Your task to perform on an android device: check battery use Image 0: 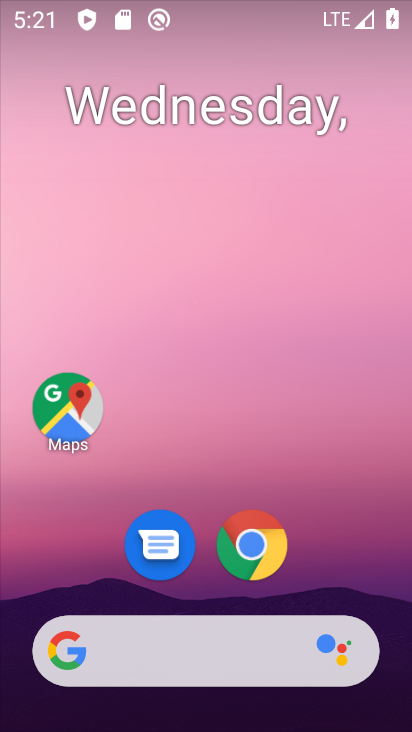
Step 0: drag from (204, 594) to (316, 26)
Your task to perform on an android device: check battery use Image 1: 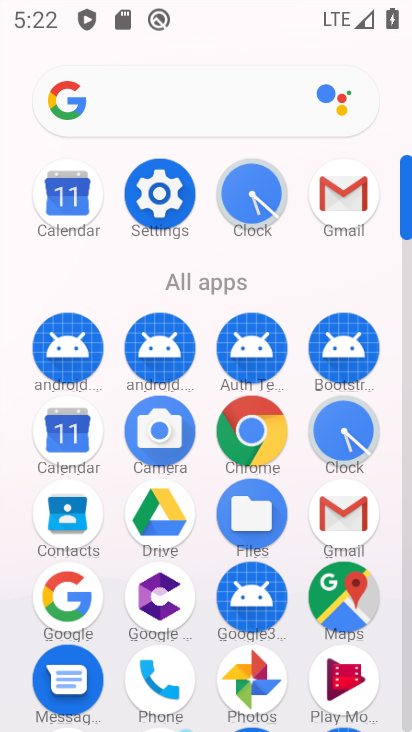
Step 1: click (156, 223)
Your task to perform on an android device: check battery use Image 2: 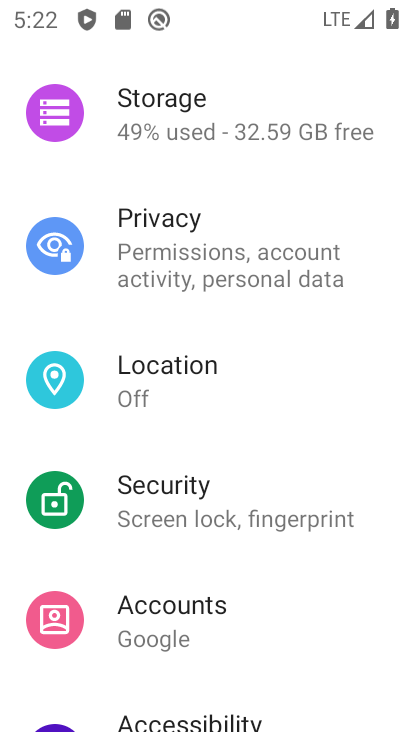
Step 2: drag from (184, 651) to (312, 94)
Your task to perform on an android device: check battery use Image 3: 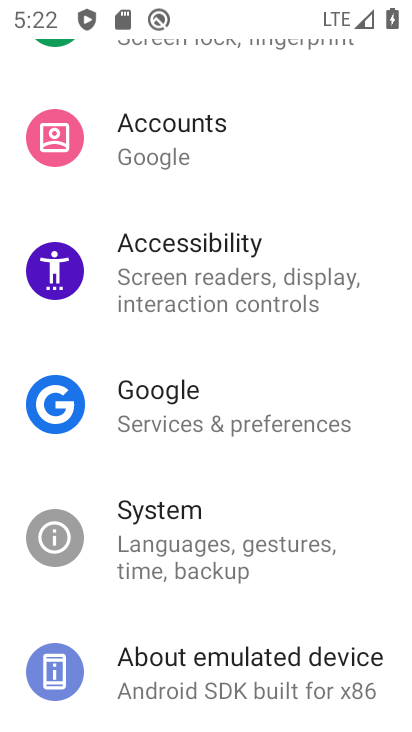
Step 3: drag from (244, 140) to (193, 730)
Your task to perform on an android device: check battery use Image 4: 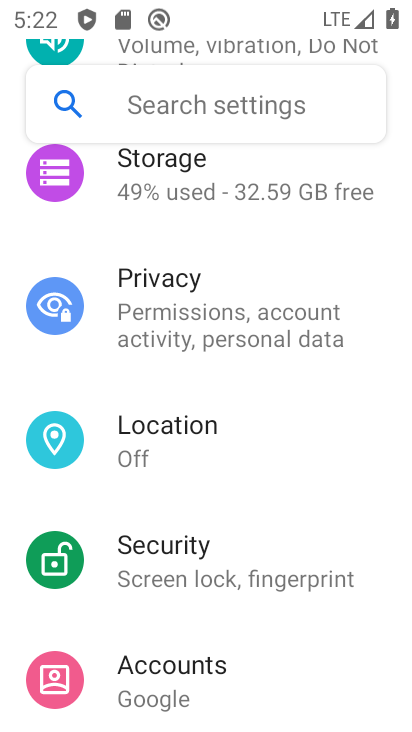
Step 4: drag from (245, 251) to (240, 676)
Your task to perform on an android device: check battery use Image 5: 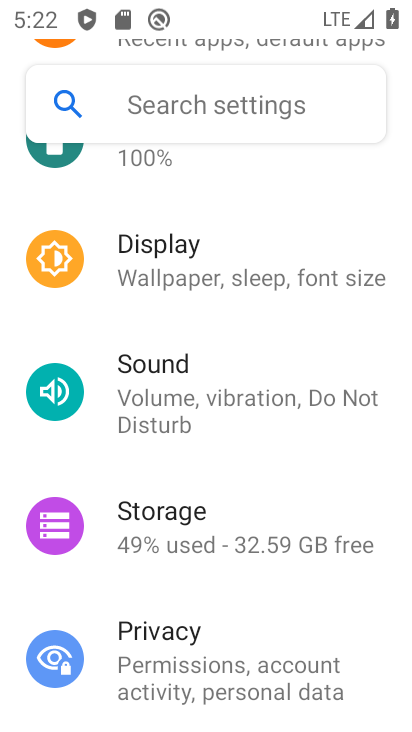
Step 5: drag from (210, 256) to (231, 645)
Your task to perform on an android device: check battery use Image 6: 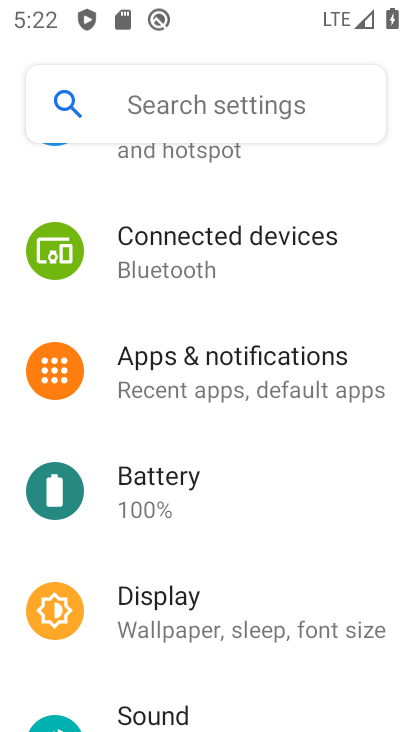
Step 6: click (156, 494)
Your task to perform on an android device: check battery use Image 7: 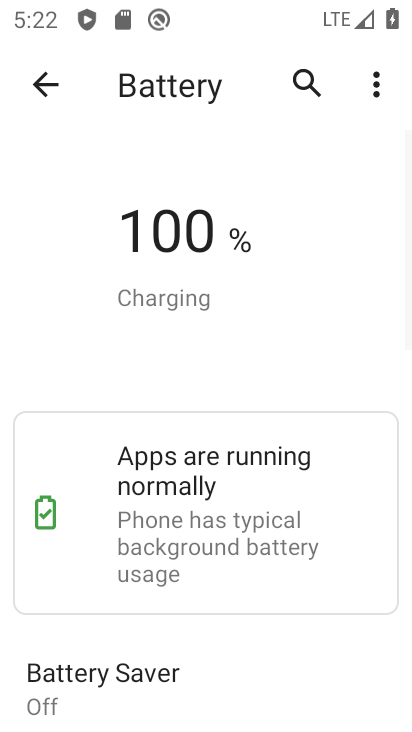
Step 7: click (381, 61)
Your task to perform on an android device: check battery use Image 8: 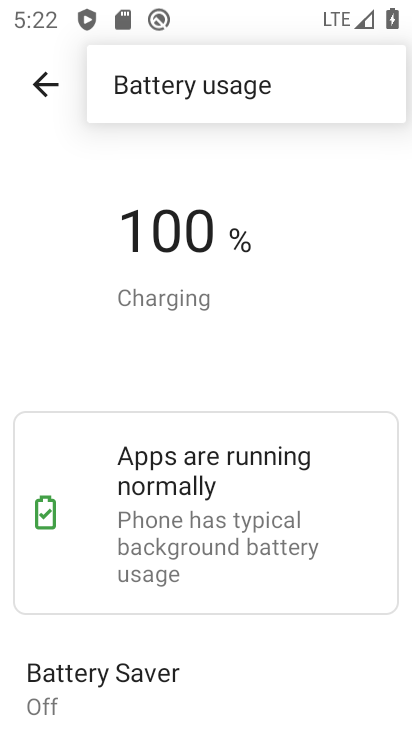
Step 8: click (208, 85)
Your task to perform on an android device: check battery use Image 9: 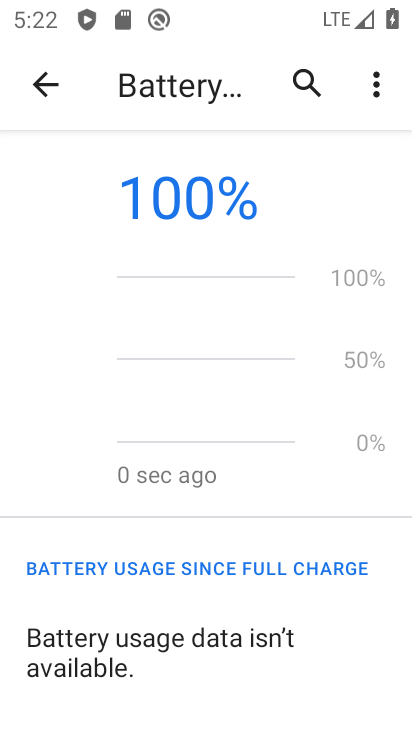
Step 9: task complete